Your task to perform on an android device: Open eBay Image 0: 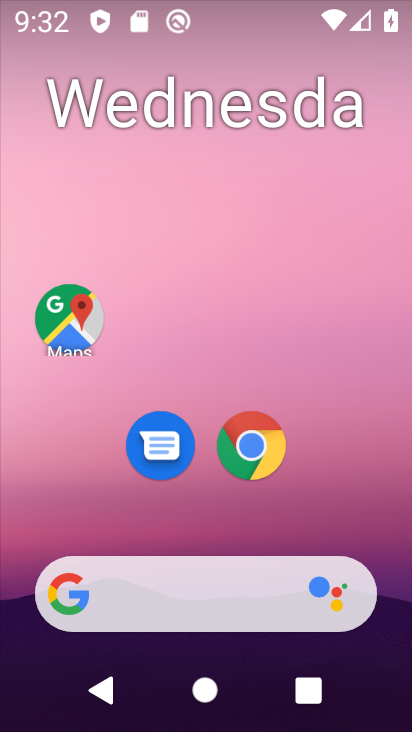
Step 0: click (248, 447)
Your task to perform on an android device: Open eBay Image 1: 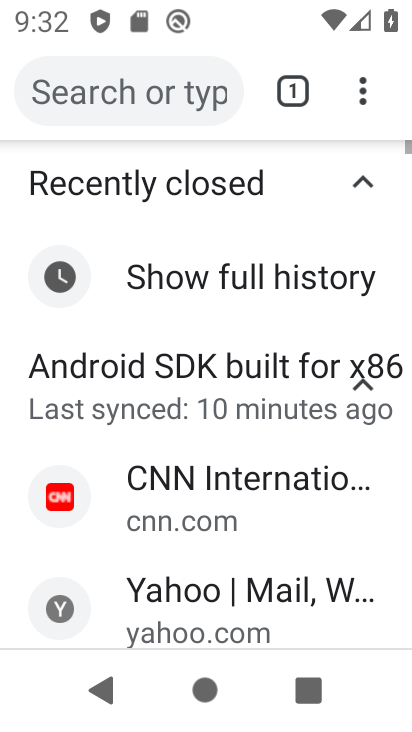
Step 1: click (291, 93)
Your task to perform on an android device: Open eBay Image 2: 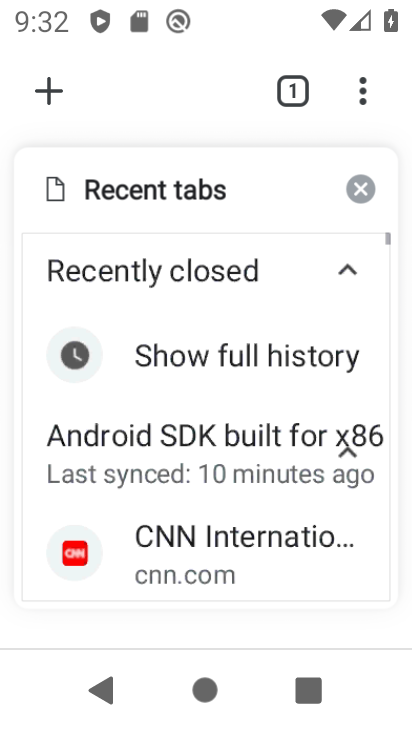
Step 2: click (52, 86)
Your task to perform on an android device: Open eBay Image 3: 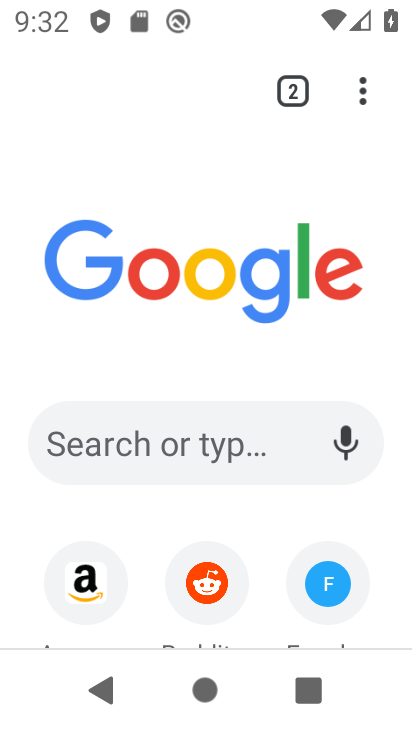
Step 3: click (120, 448)
Your task to perform on an android device: Open eBay Image 4: 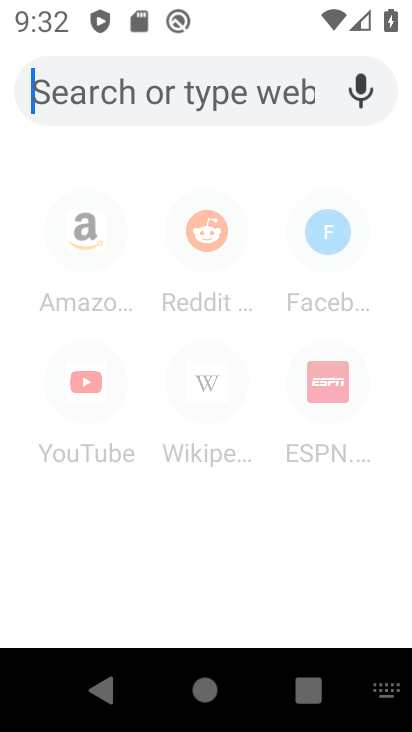
Step 4: type "ebay"
Your task to perform on an android device: Open eBay Image 5: 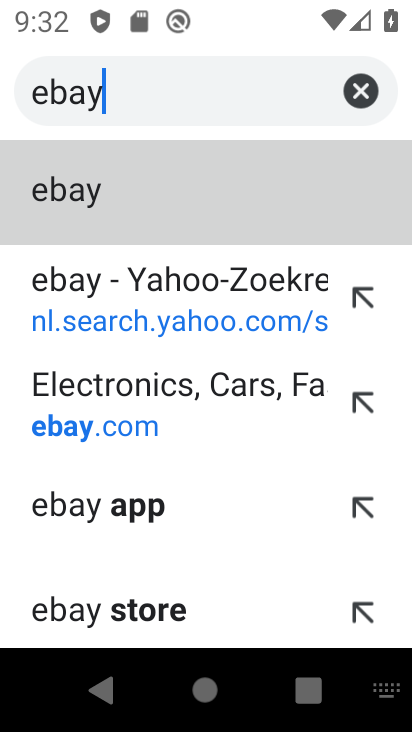
Step 5: click (77, 193)
Your task to perform on an android device: Open eBay Image 6: 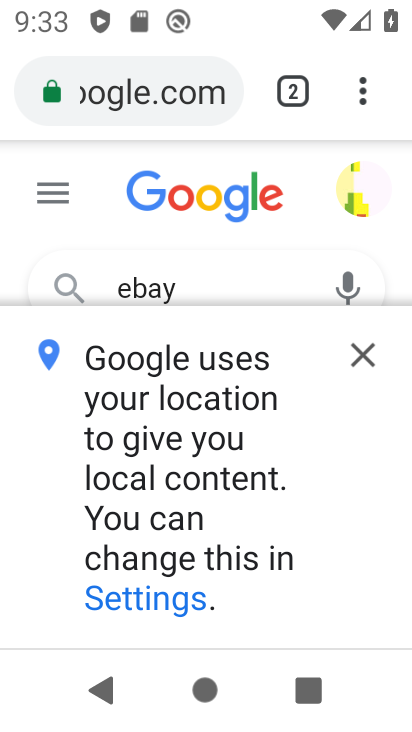
Step 6: task complete